Your task to perform on an android device: add a contact in the contacts app Image 0: 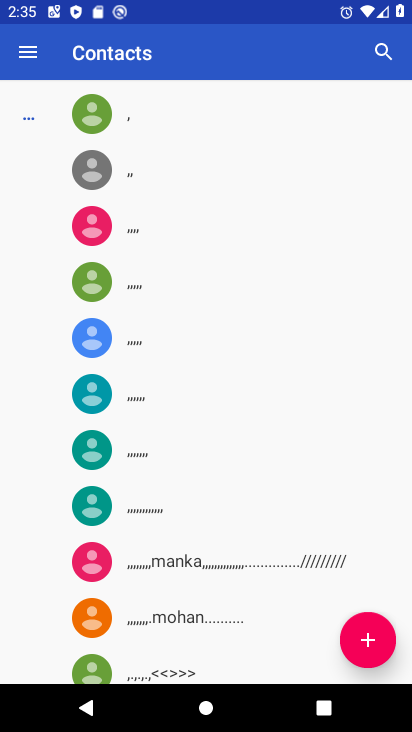
Step 0: press home button
Your task to perform on an android device: add a contact in the contacts app Image 1: 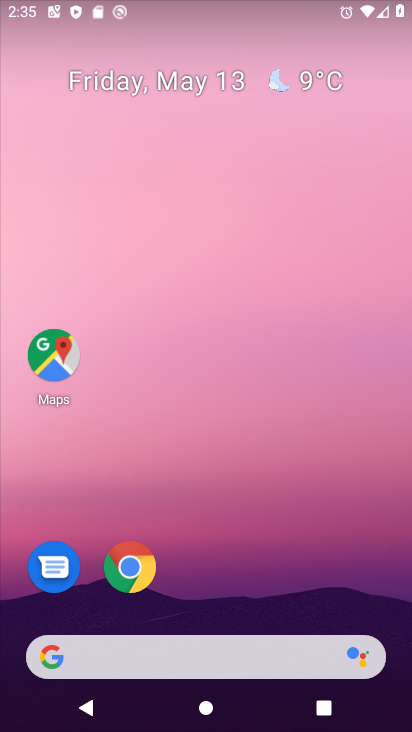
Step 1: drag from (229, 533) to (304, 16)
Your task to perform on an android device: add a contact in the contacts app Image 2: 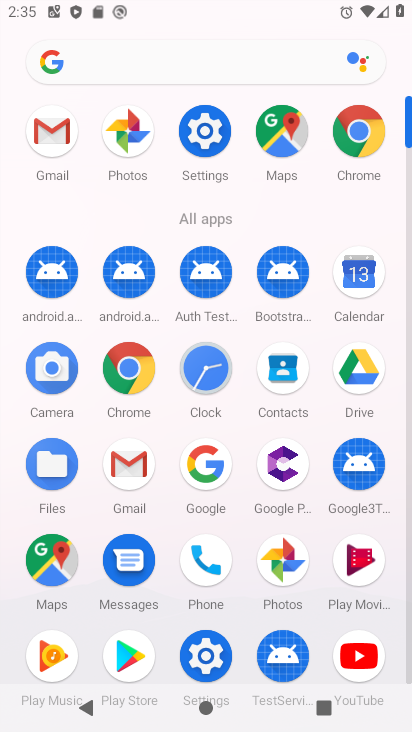
Step 2: click (300, 378)
Your task to perform on an android device: add a contact in the contacts app Image 3: 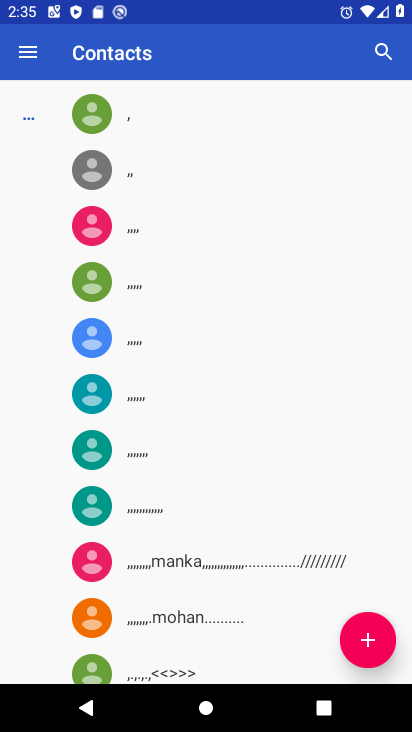
Step 3: click (372, 638)
Your task to perform on an android device: add a contact in the contacts app Image 4: 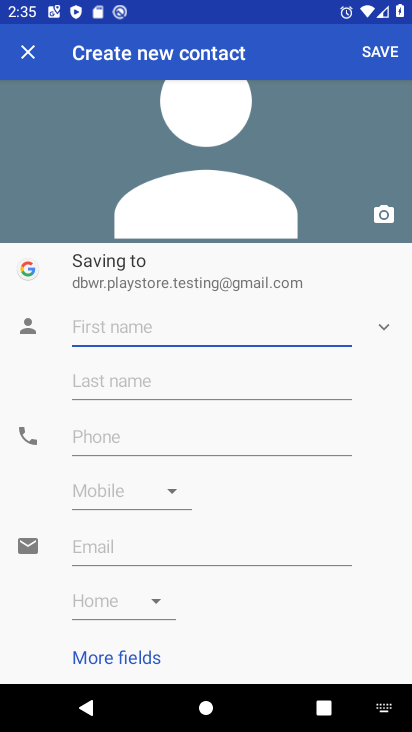
Step 4: type "blade"
Your task to perform on an android device: add a contact in the contacts app Image 5: 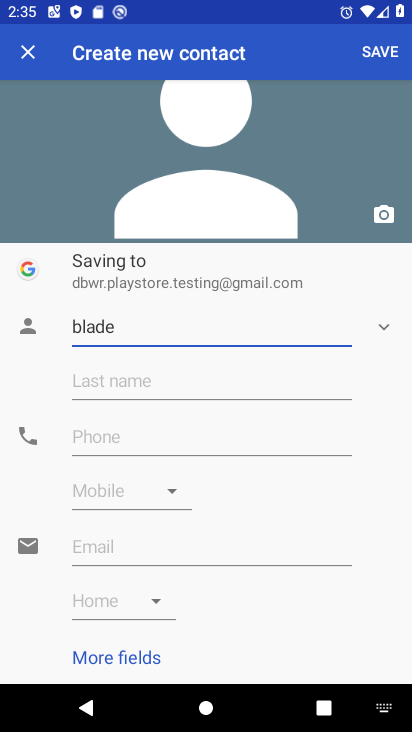
Step 5: click (397, 43)
Your task to perform on an android device: add a contact in the contacts app Image 6: 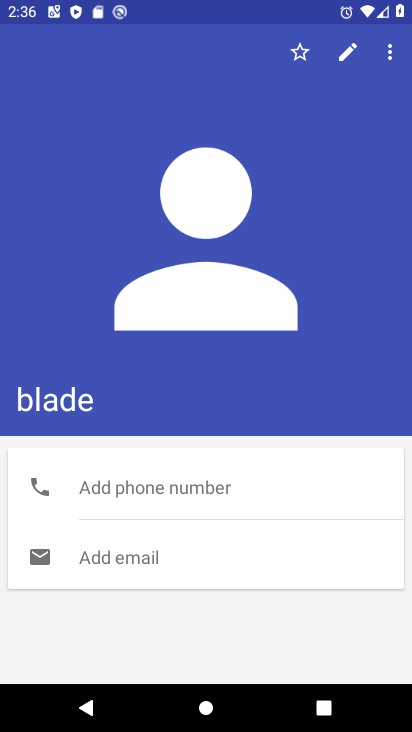
Step 6: task complete